Your task to perform on an android device: Go to Google maps Image 0: 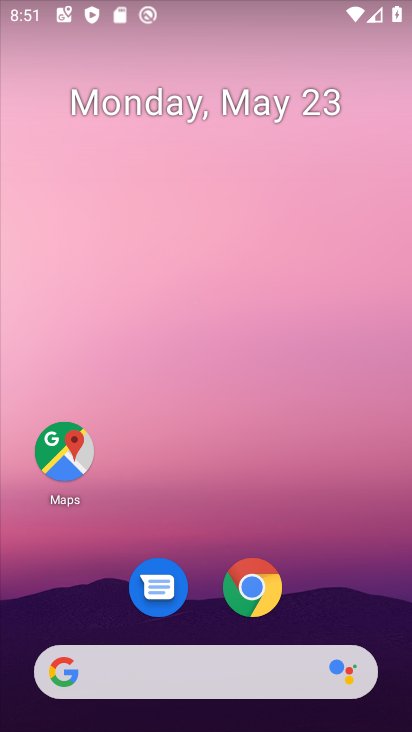
Step 0: click (54, 435)
Your task to perform on an android device: Go to Google maps Image 1: 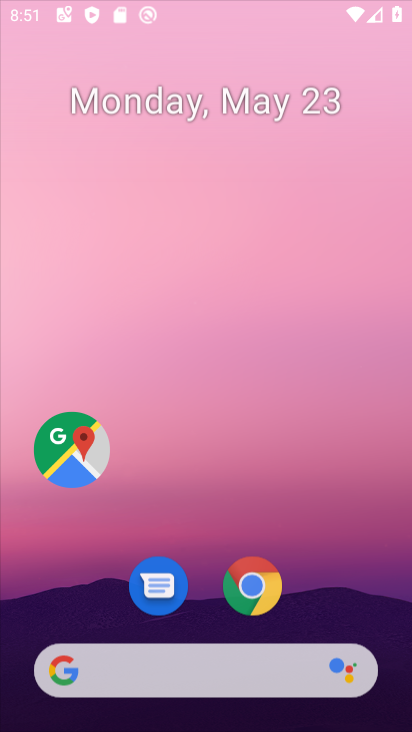
Step 1: click (54, 435)
Your task to perform on an android device: Go to Google maps Image 2: 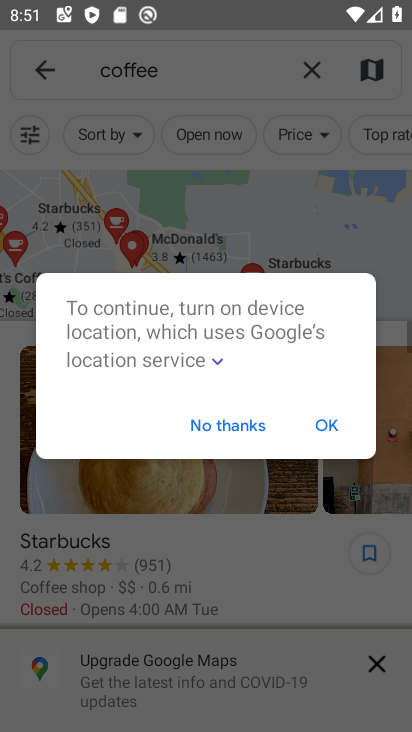
Step 2: drag from (274, 512) to (212, 5)
Your task to perform on an android device: Go to Google maps Image 3: 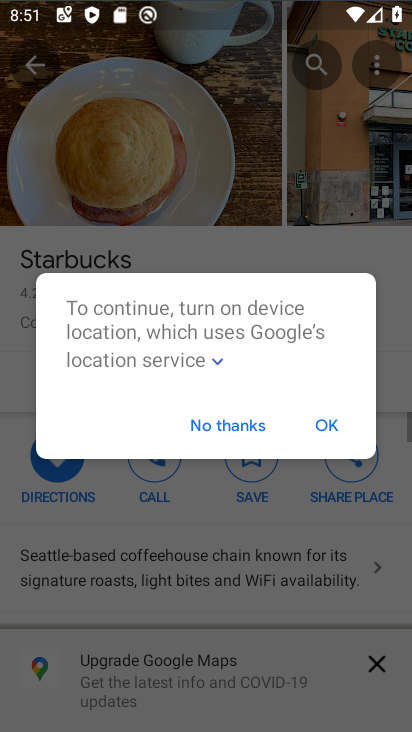
Step 3: click (237, 428)
Your task to perform on an android device: Go to Google maps Image 4: 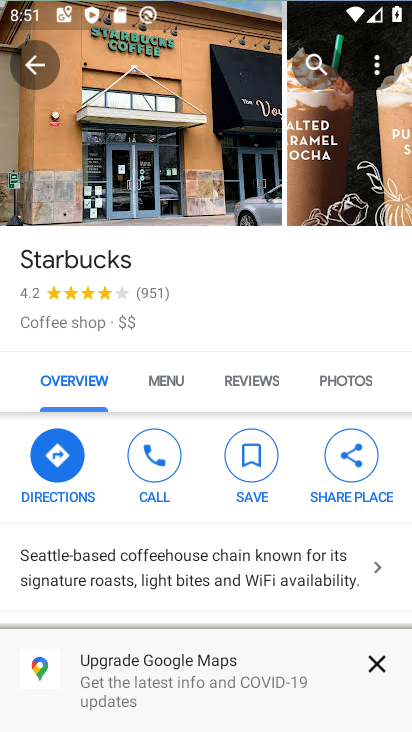
Step 4: task complete